Your task to perform on an android device: Search for flights from NYC to San Diego Image 0: 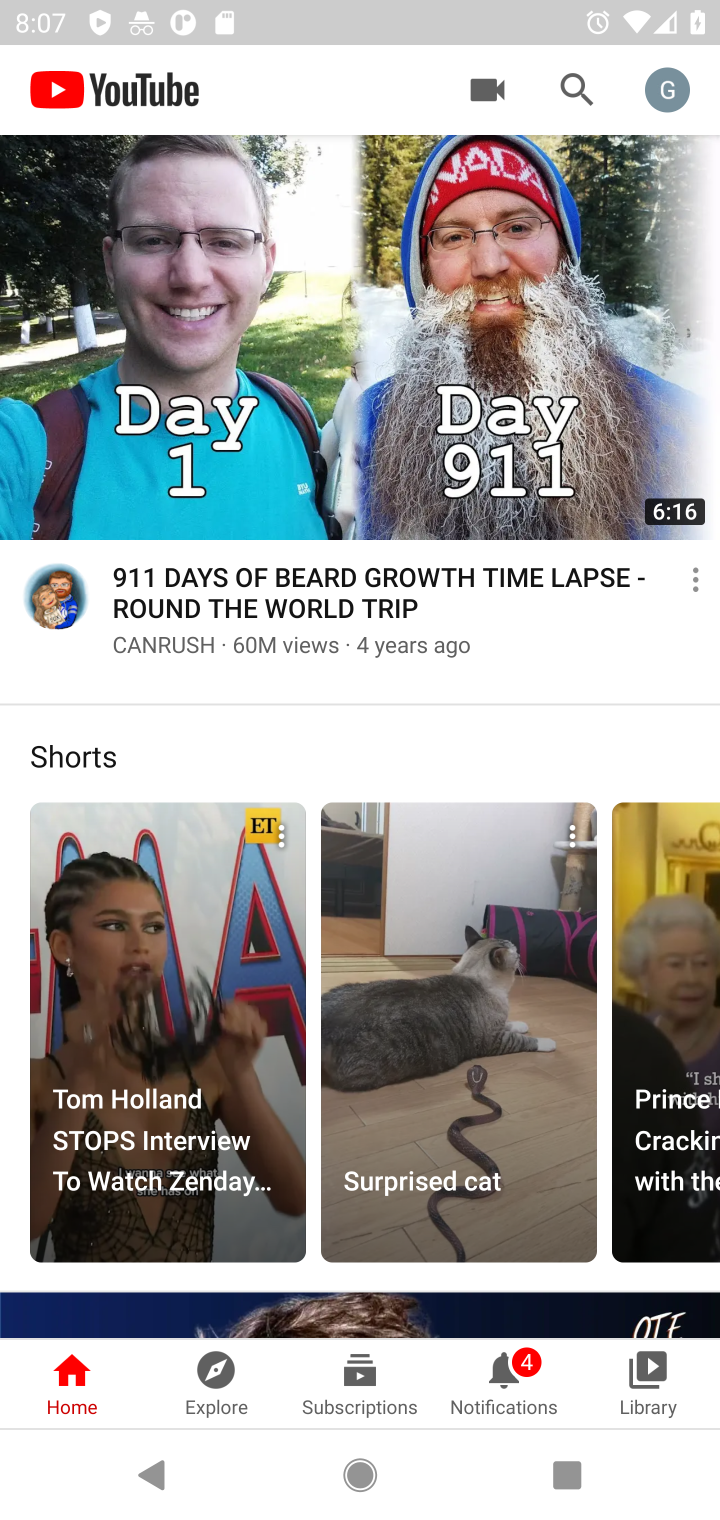
Step 0: click (356, 1488)
Your task to perform on an android device: Search for flights from NYC to San Diego Image 1: 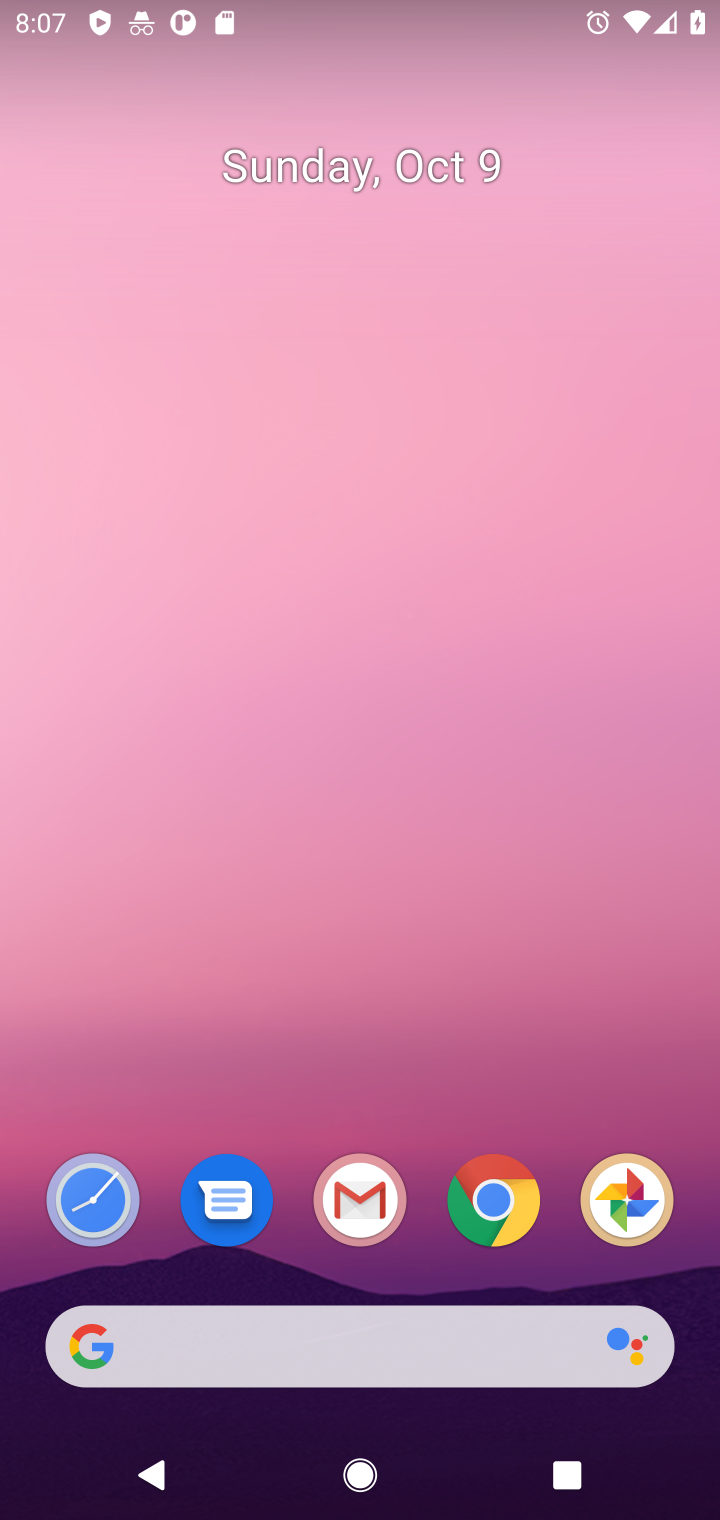
Step 1: click (487, 1214)
Your task to perform on an android device: Search for flights from NYC to San Diego Image 2: 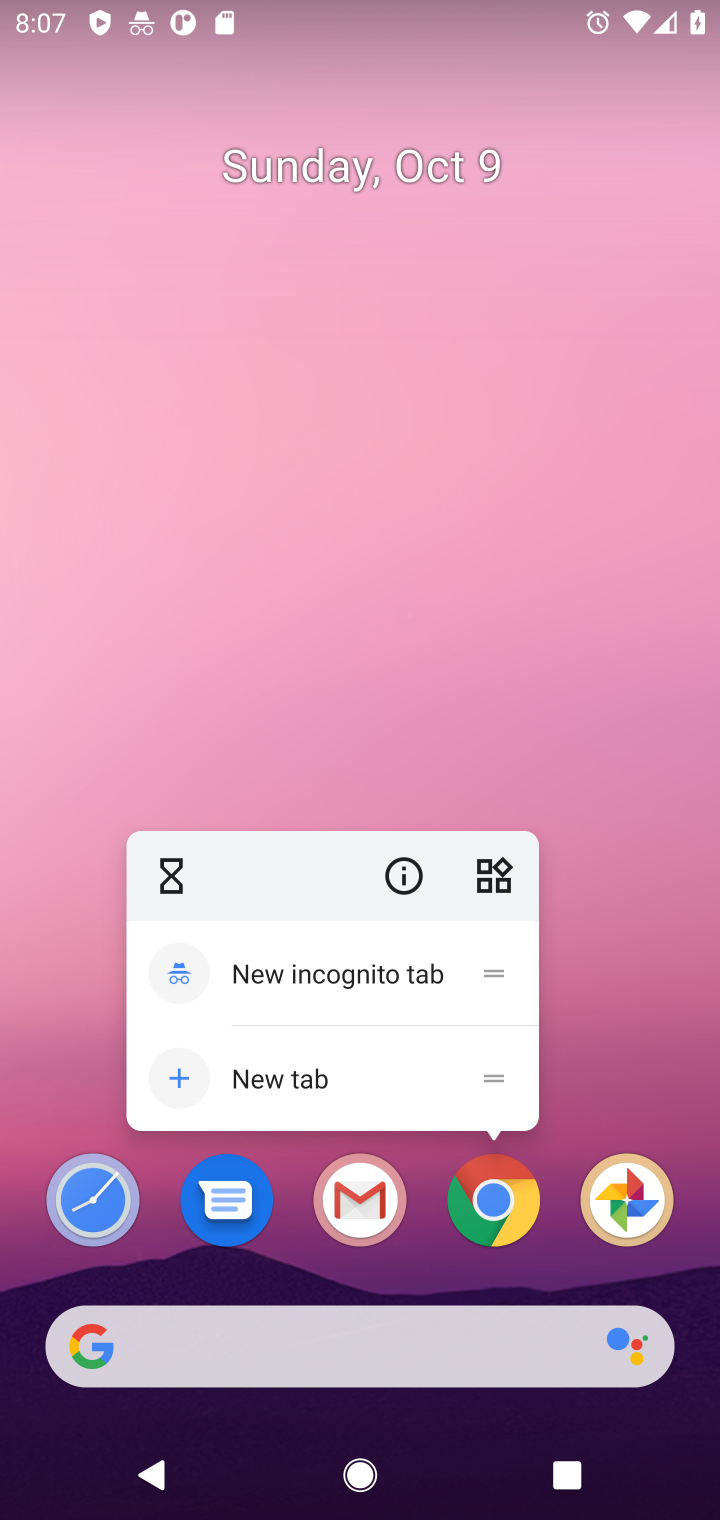
Step 2: click (487, 1214)
Your task to perform on an android device: Search for flights from NYC to San Diego Image 3: 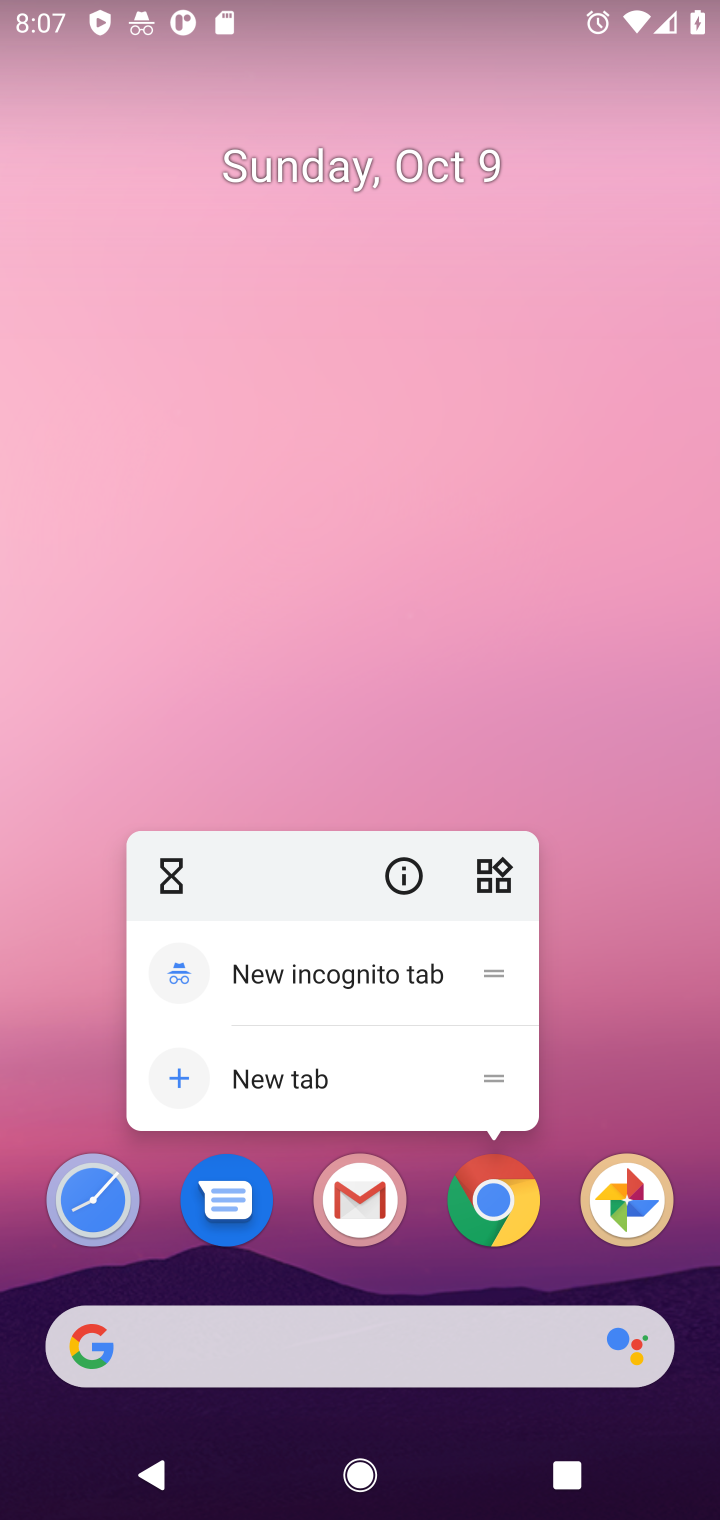
Step 3: click (499, 1203)
Your task to perform on an android device: Search for flights from NYC to San Diego Image 4: 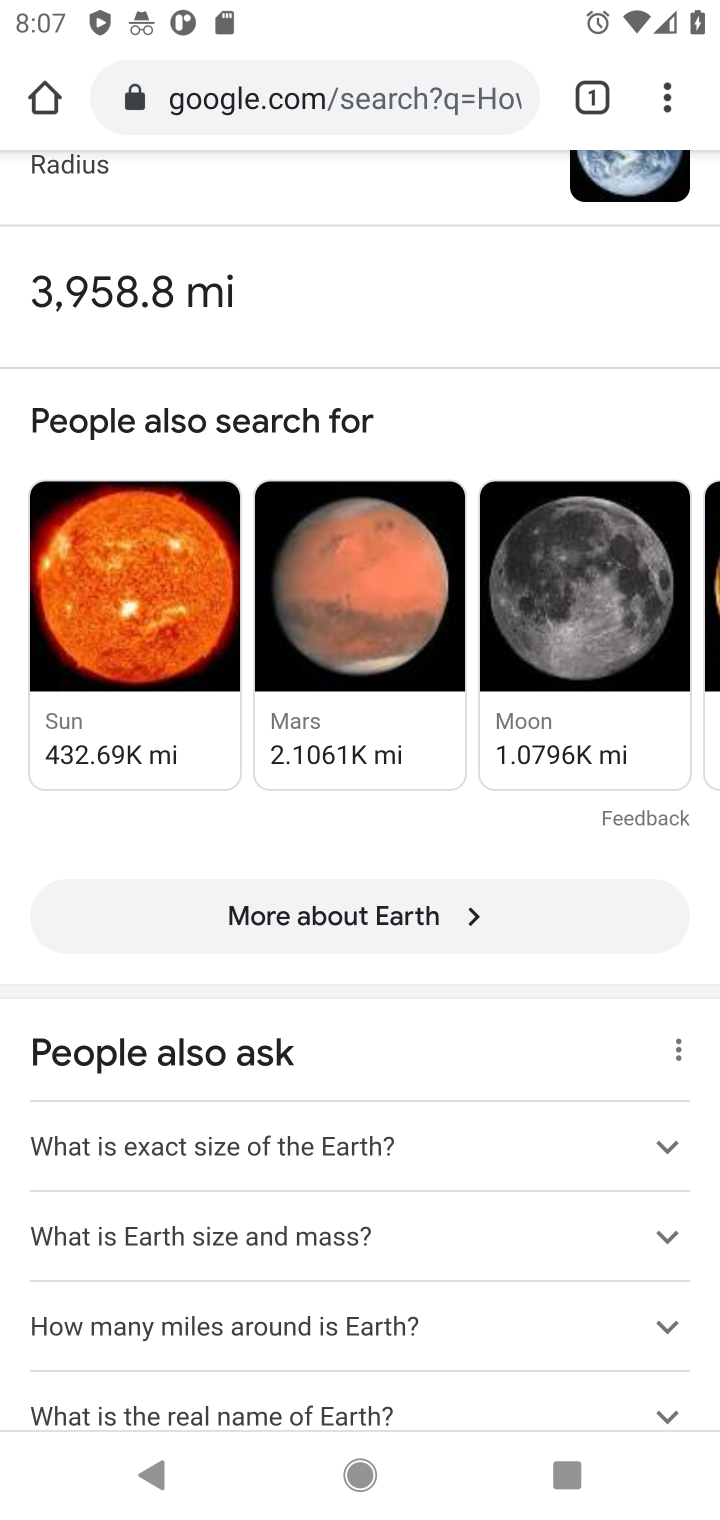
Step 4: click (285, 99)
Your task to perform on an android device: Search for flights from NYC to San Diego Image 5: 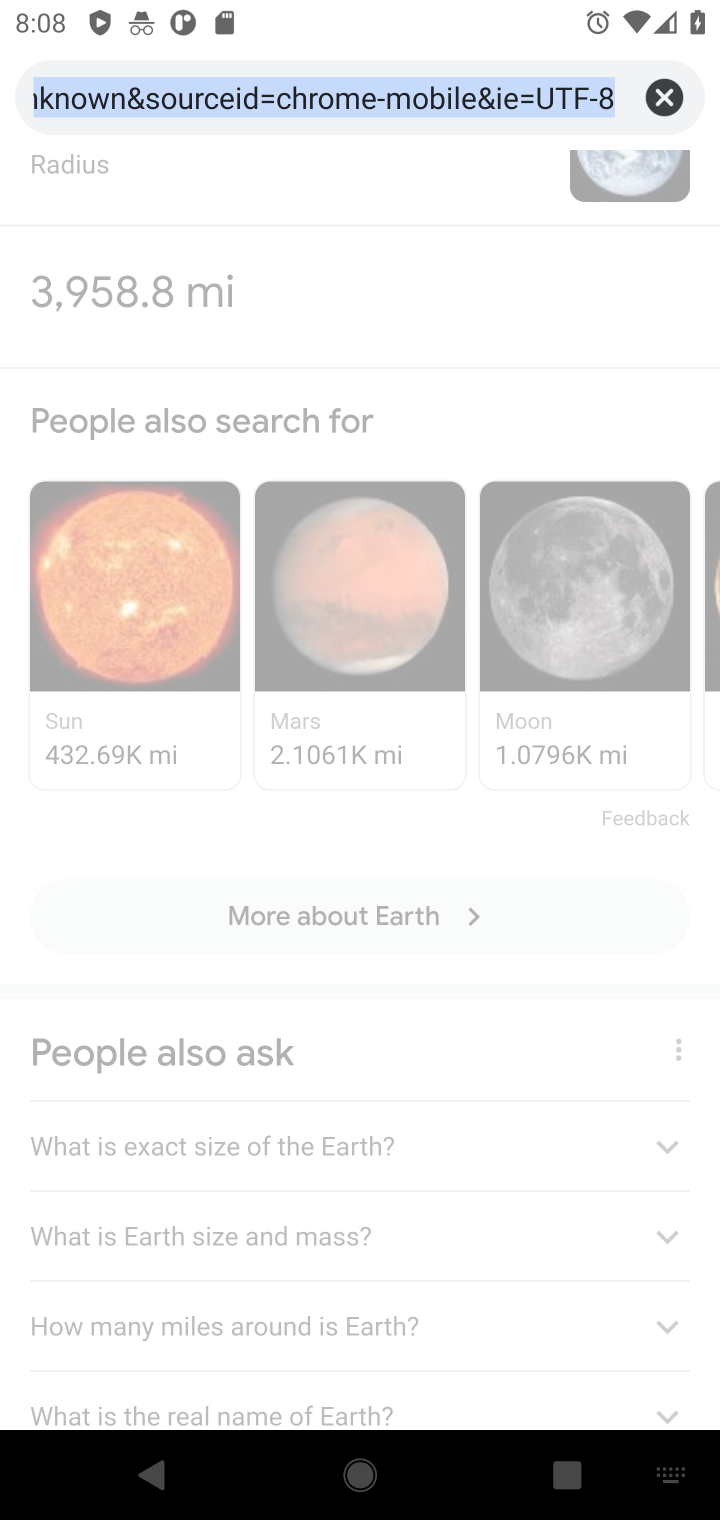
Step 5: type "flights from NYC to San Diego"
Your task to perform on an android device: Search for flights from NYC to San Diego Image 6: 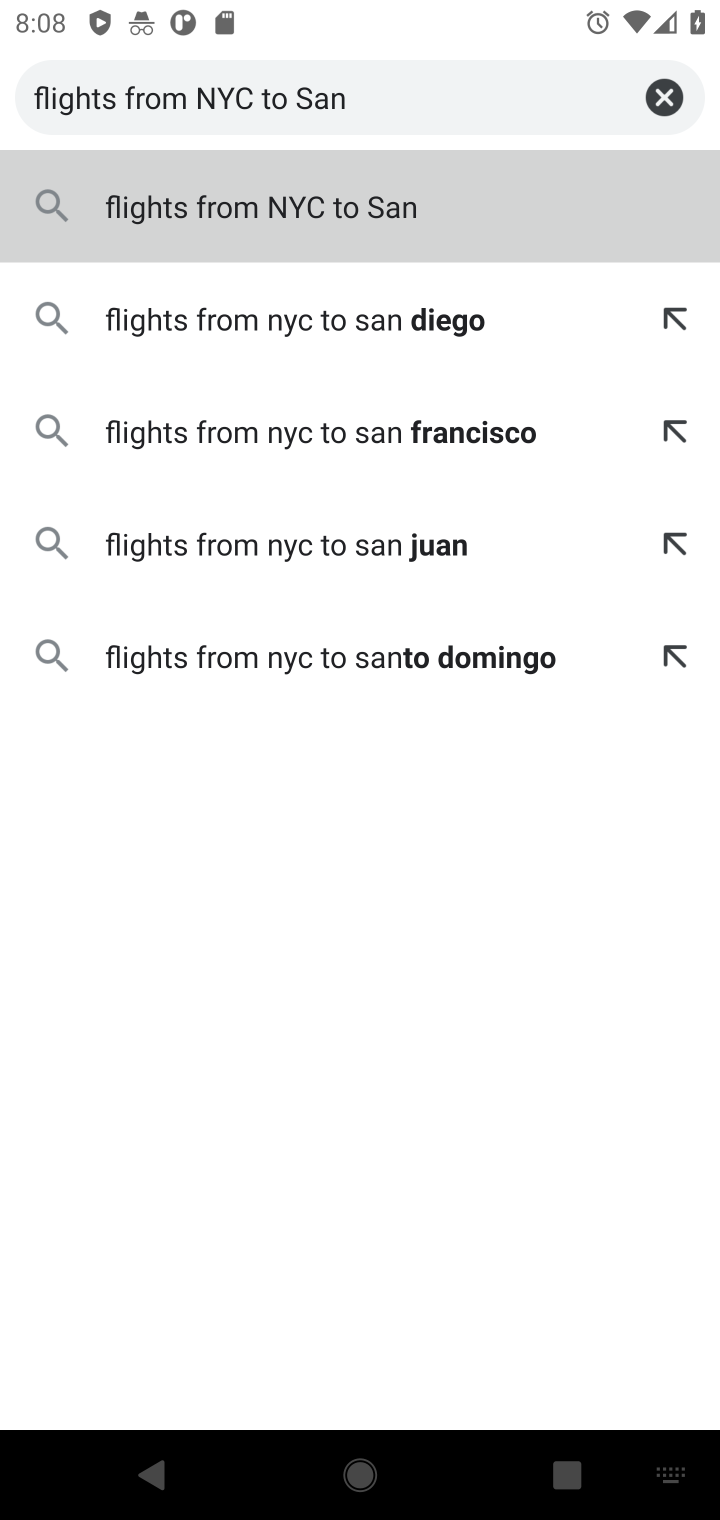
Step 6: type ""
Your task to perform on an android device: Search for flights from NYC to San Diego Image 7: 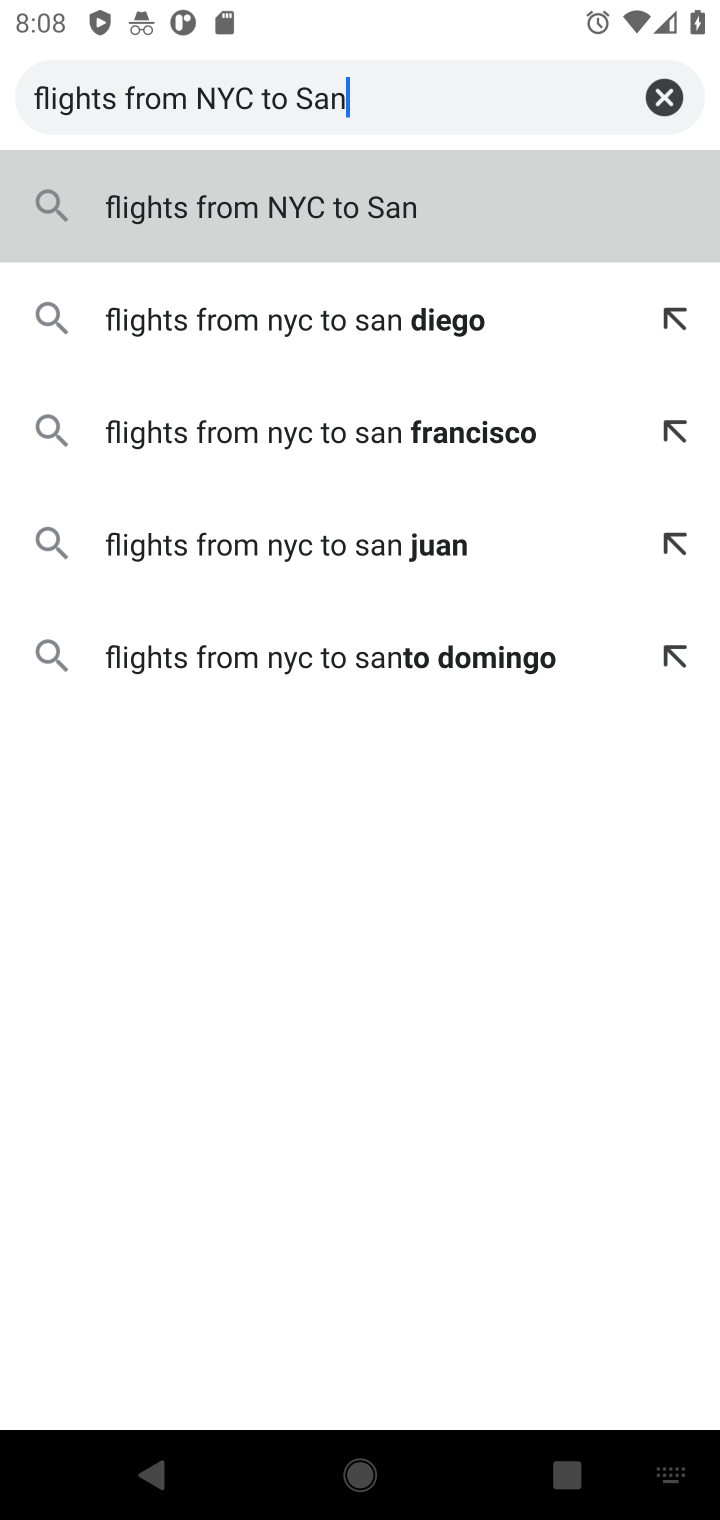
Step 7: click (374, 333)
Your task to perform on an android device: Search for flights from NYC to San Diego Image 8: 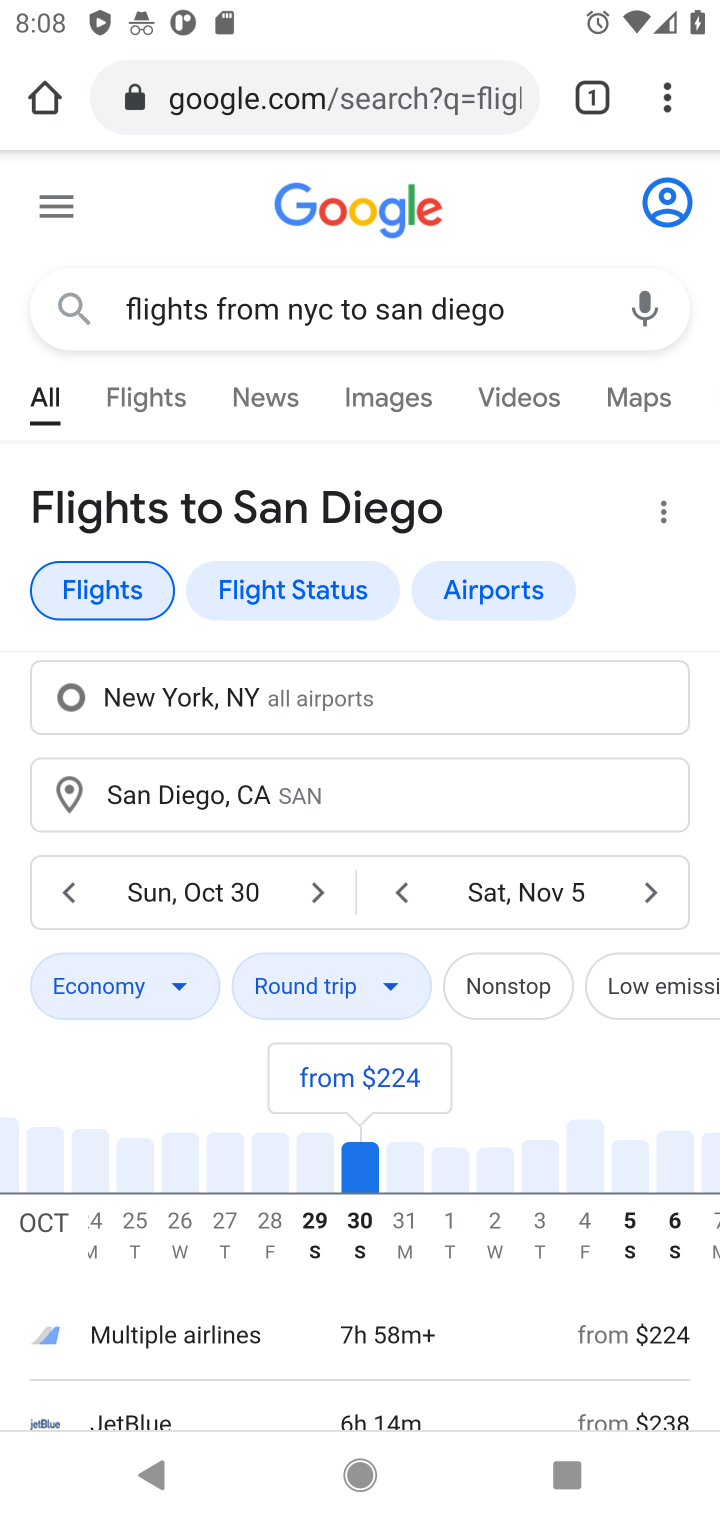
Step 8: drag from (512, 1099) to (618, 522)
Your task to perform on an android device: Search for flights from NYC to San Diego Image 9: 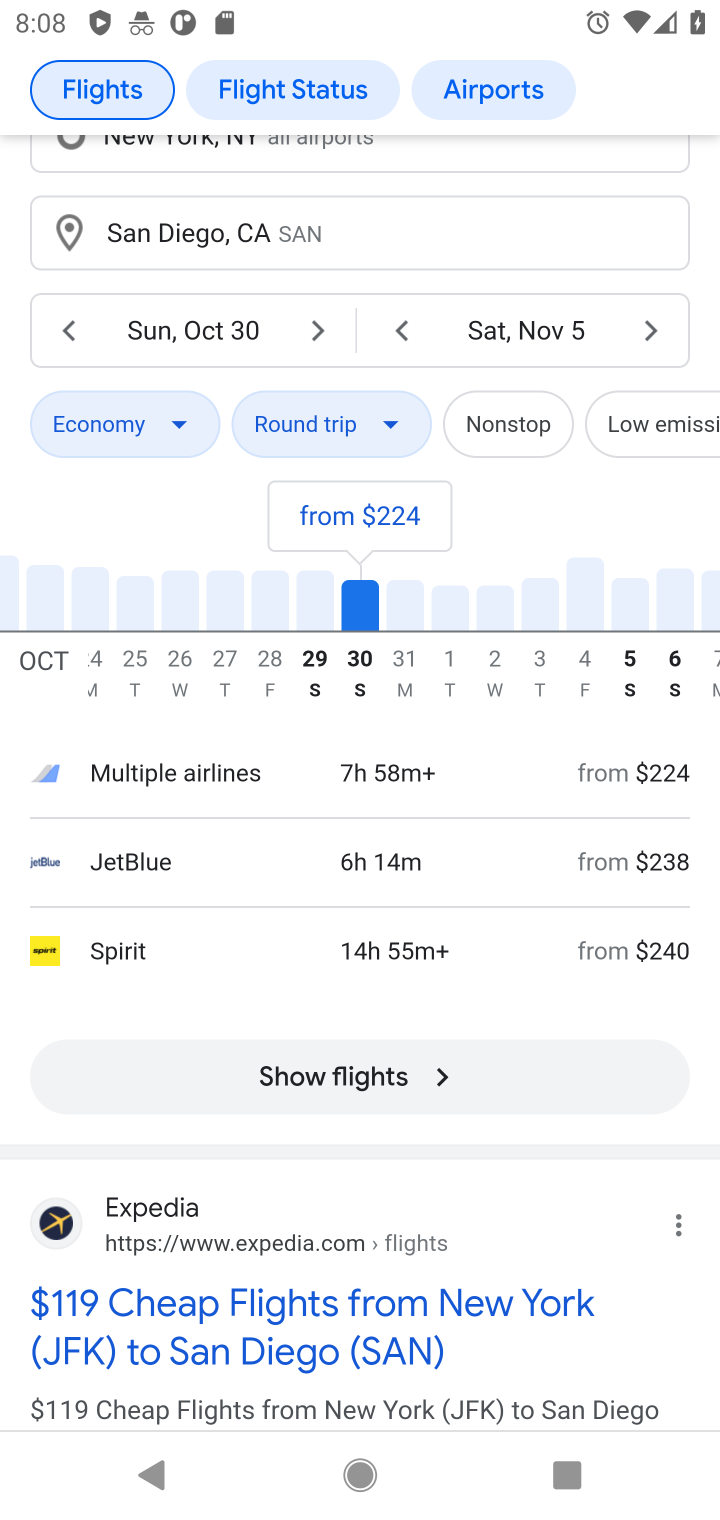
Step 9: click (370, 1081)
Your task to perform on an android device: Search for flights from NYC to San Diego Image 10: 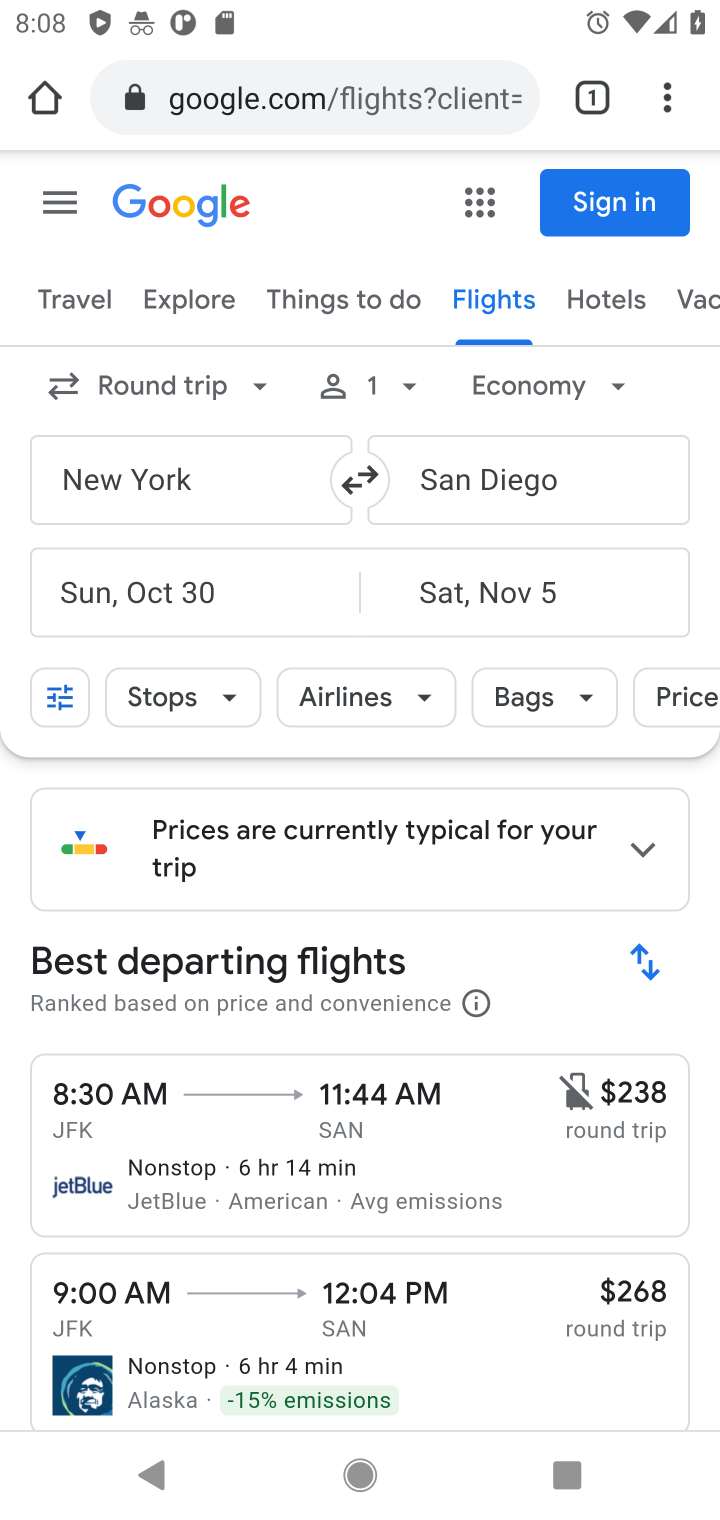
Step 10: task complete